Your task to perform on an android device: clear all cookies in the chrome app Image 0: 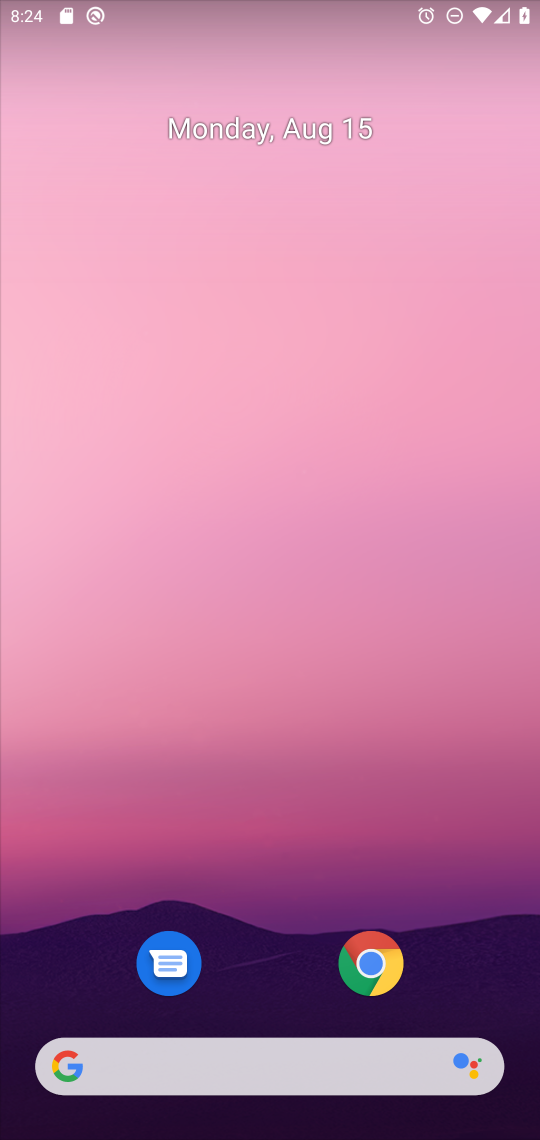
Step 0: click (389, 961)
Your task to perform on an android device: clear all cookies in the chrome app Image 1: 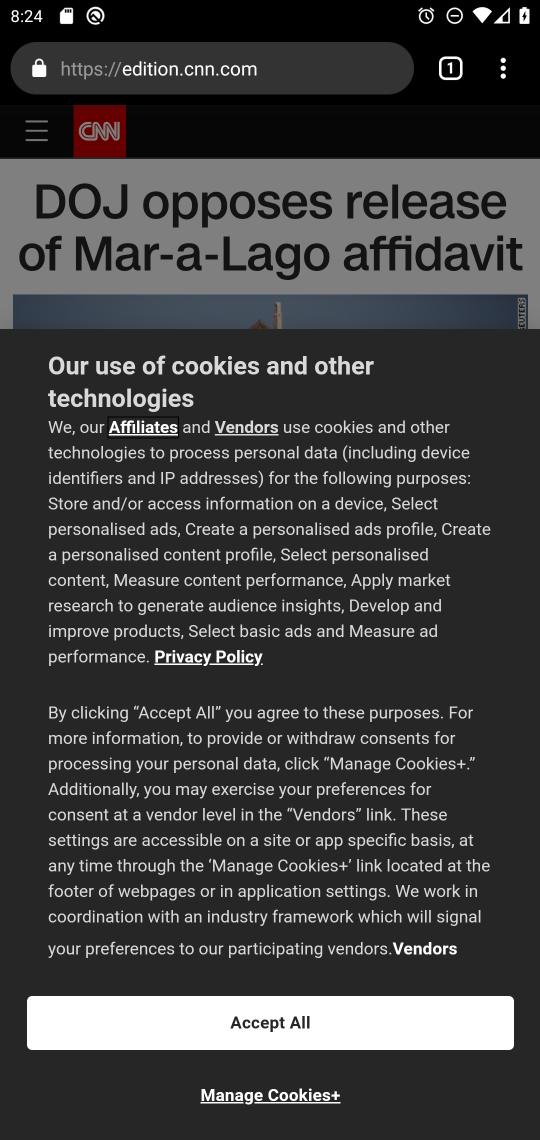
Step 1: click (513, 78)
Your task to perform on an android device: clear all cookies in the chrome app Image 2: 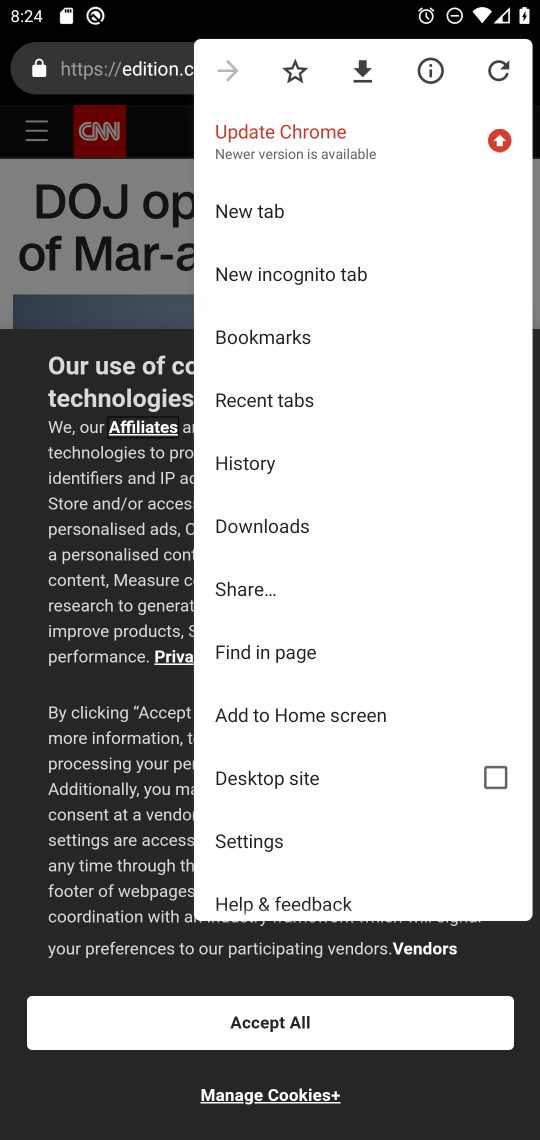
Step 2: click (316, 825)
Your task to perform on an android device: clear all cookies in the chrome app Image 3: 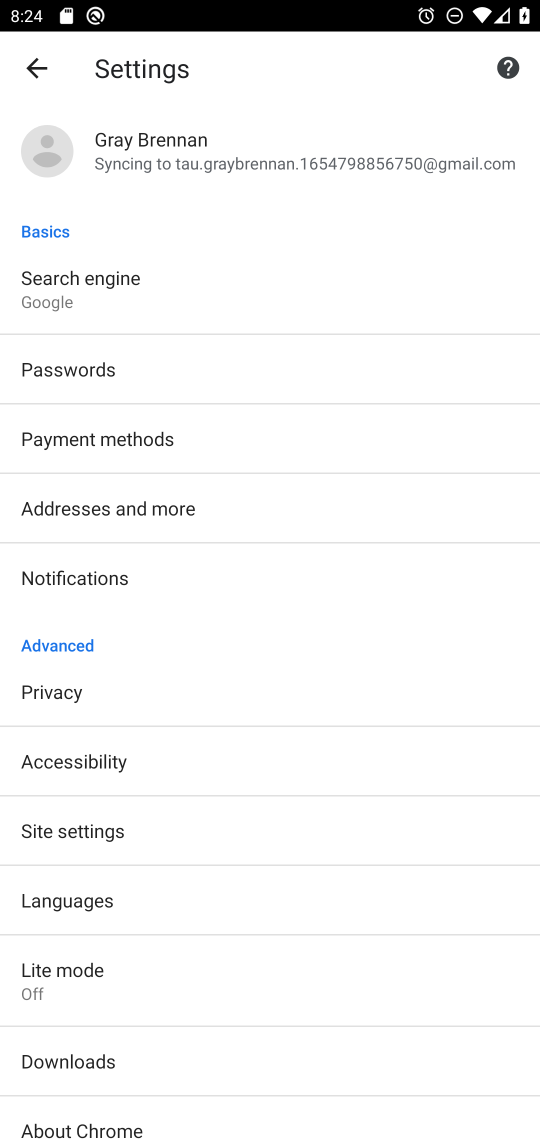
Step 3: drag from (237, 1007) to (279, 110)
Your task to perform on an android device: clear all cookies in the chrome app Image 4: 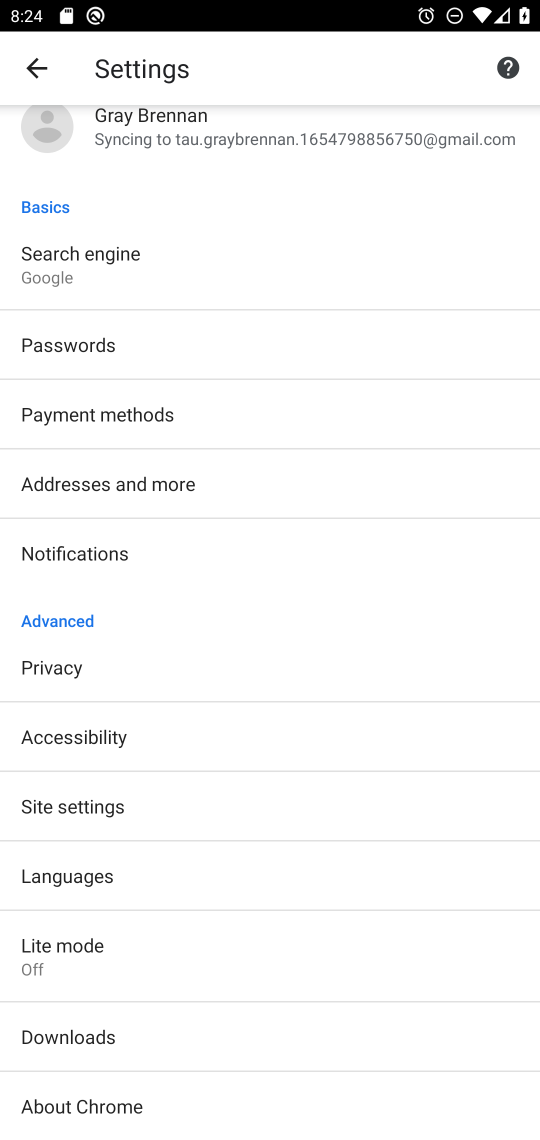
Step 4: drag from (144, 1006) to (216, 179)
Your task to perform on an android device: clear all cookies in the chrome app Image 5: 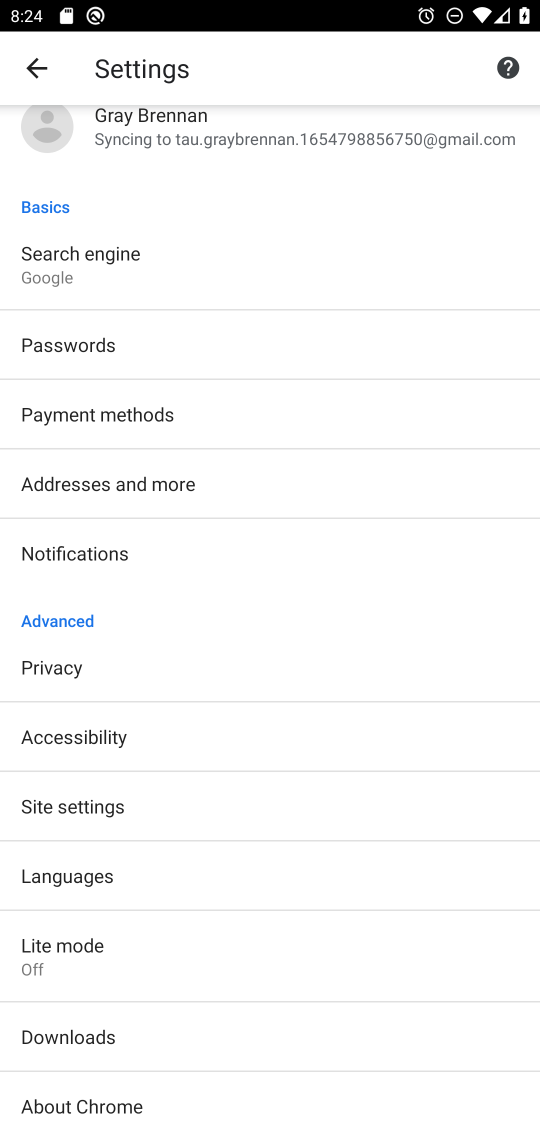
Step 5: click (41, 61)
Your task to perform on an android device: clear all cookies in the chrome app Image 6: 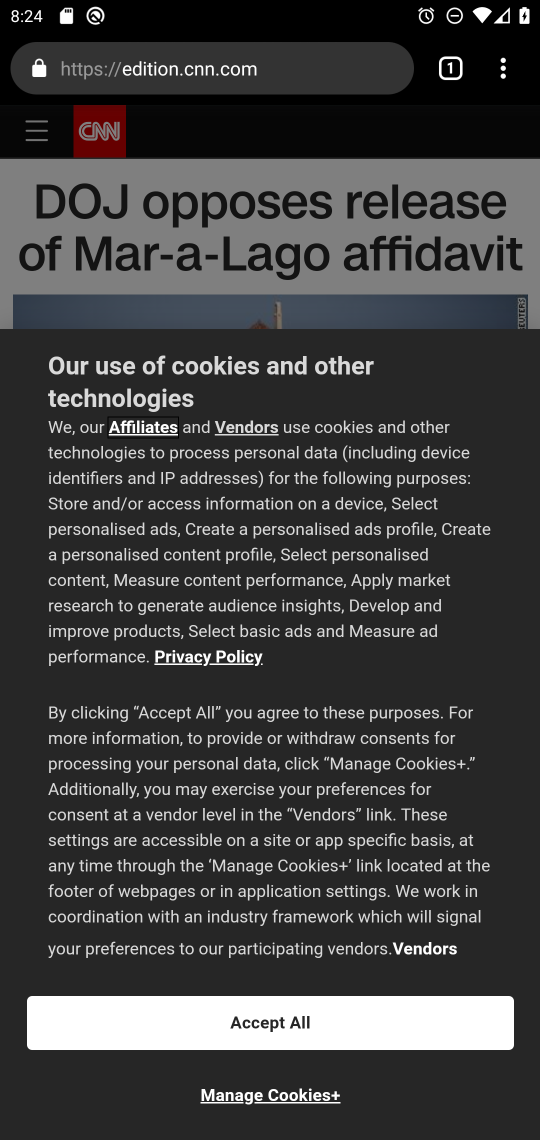
Step 6: click (516, 56)
Your task to perform on an android device: clear all cookies in the chrome app Image 7: 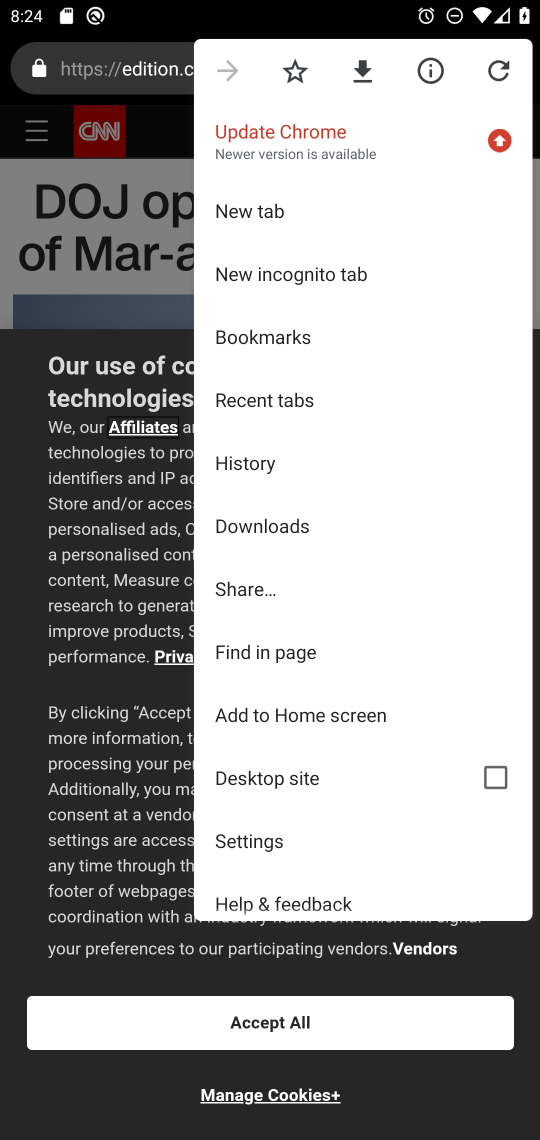
Step 7: click (261, 452)
Your task to perform on an android device: clear all cookies in the chrome app Image 8: 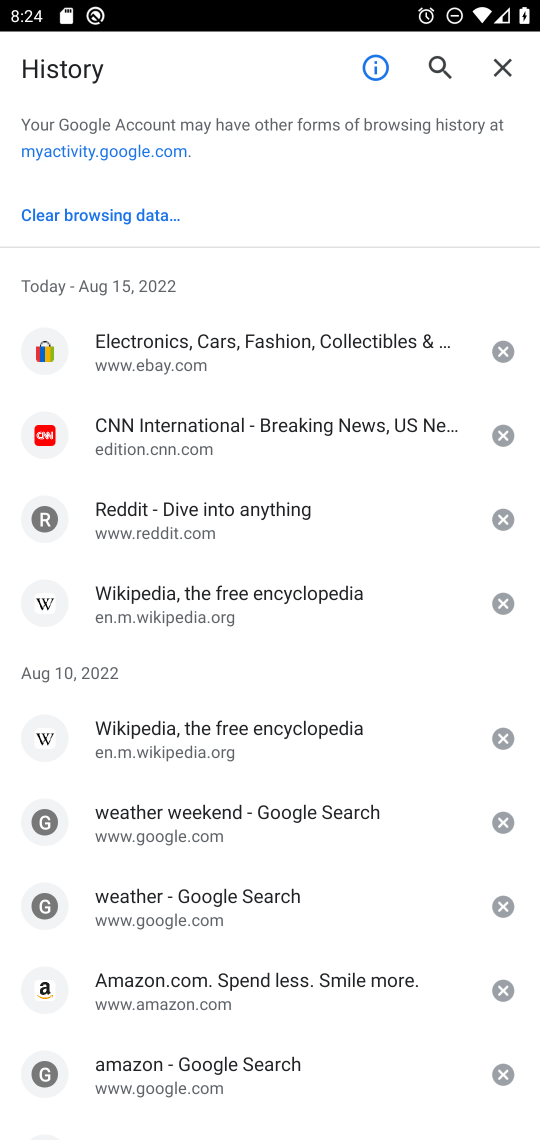
Step 8: click (102, 232)
Your task to perform on an android device: clear all cookies in the chrome app Image 9: 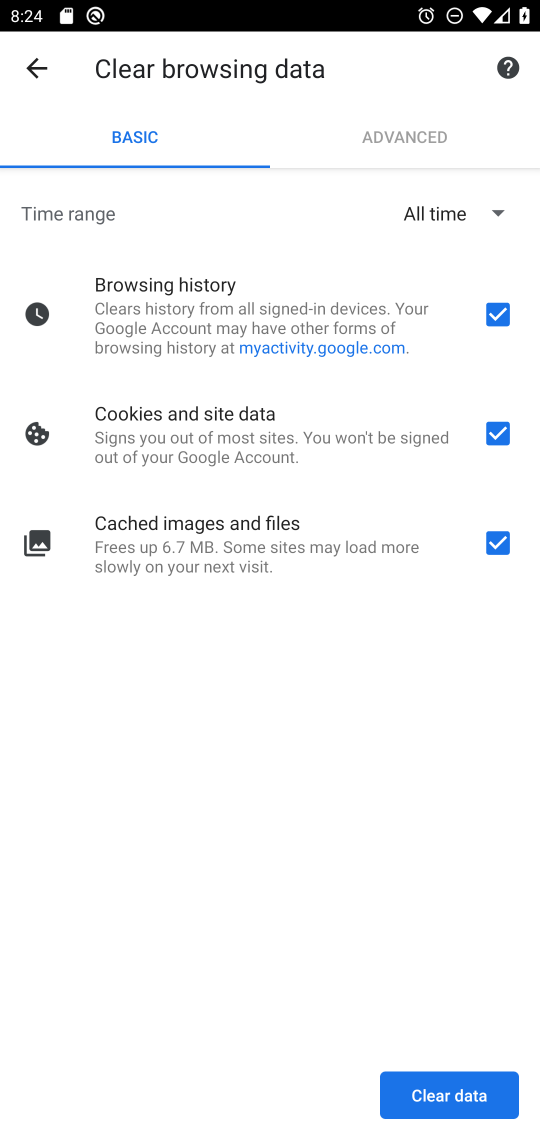
Step 9: click (486, 301)
Your task to perform on an android device: clear all cookies in the chrome app Image 10: 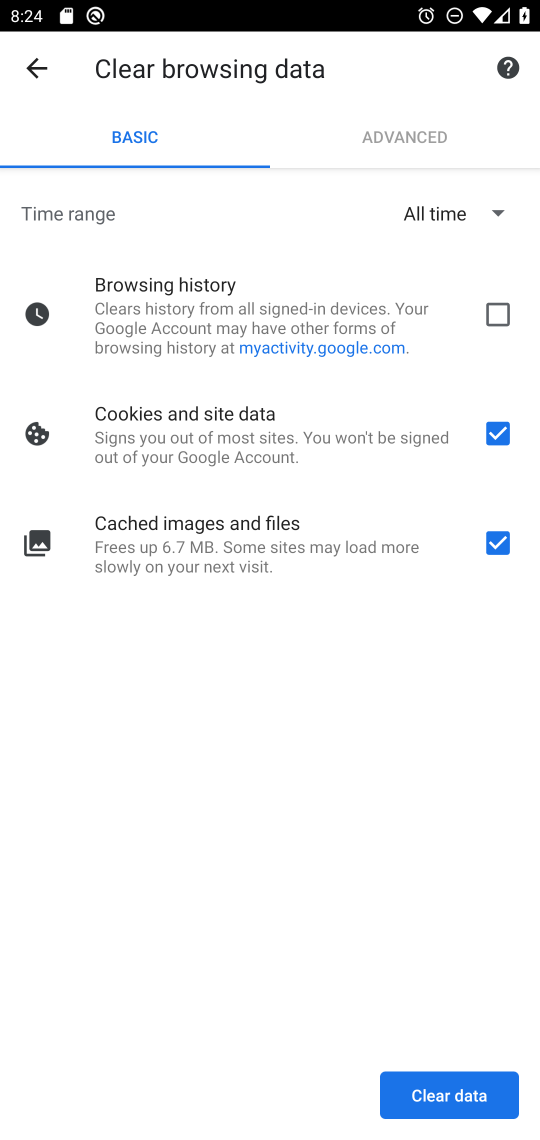
Step 10: click (493, 550)
Your task to perform on an android device: clear all cookies in the chrome app Image 11: 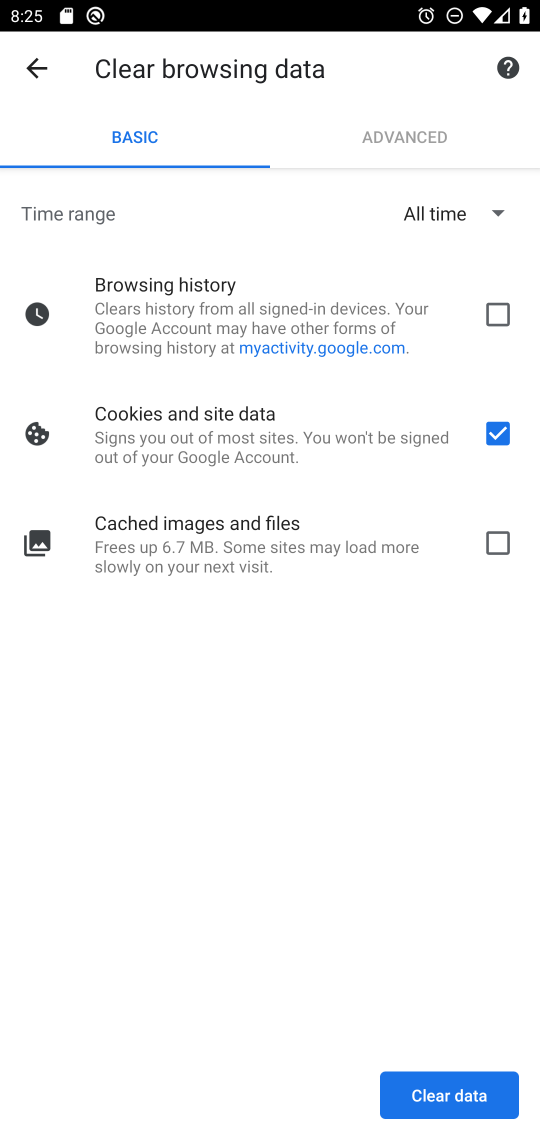
Step 11: click (455, 1093)
Your task to perform on an android device: clear all cookies in the chrome app Image 12: 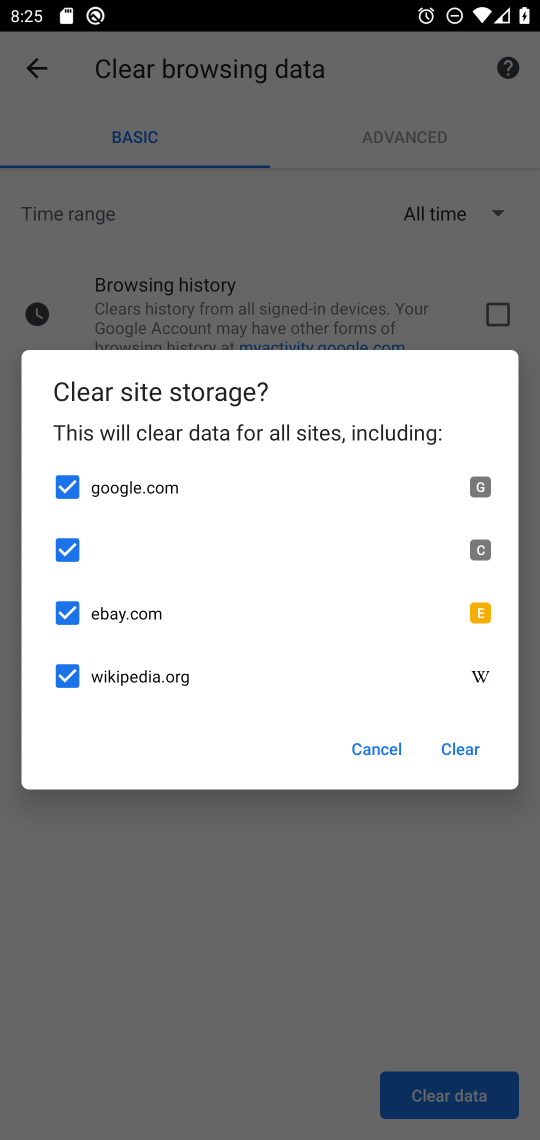
Step 12: click (469, 744)
Your task to perform on an android device: clear all cookies in the chrome app Image 13: 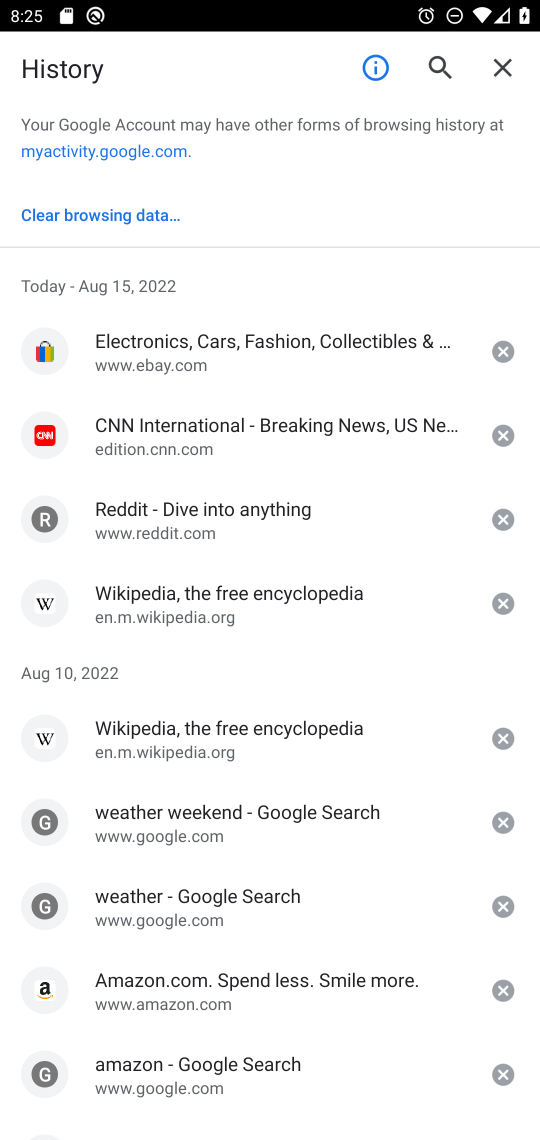
Step 13: task complete